Your task to perform on an android device: turn on the 24-hour format for clock Image 0: 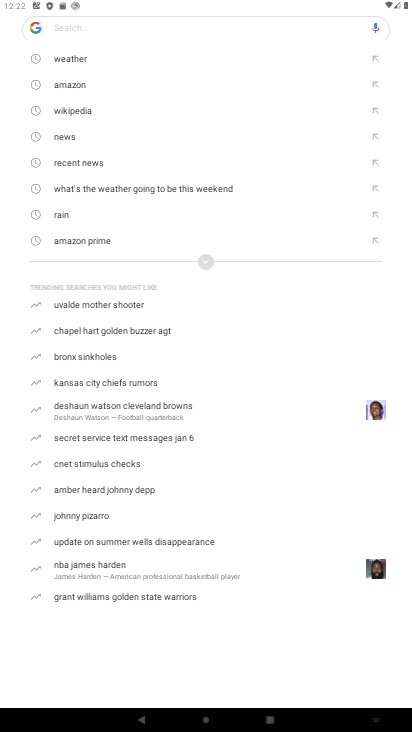
Step 0: press home button
Your task to perform on an android device: turn on the 24-hour format for clock Image 1: 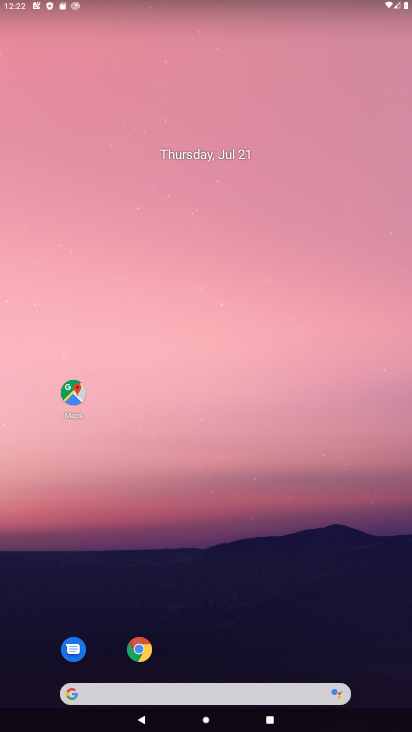
Step 1: drag from (235, 727) to (201, 192)
Your task to perform on an android device: turn on the 24-hour format for clock Image 2: 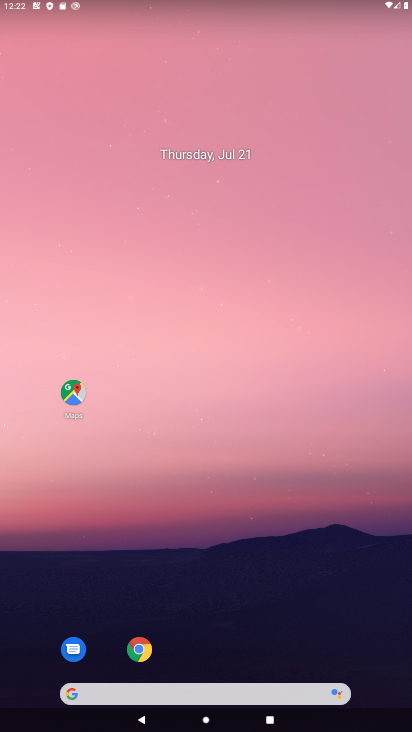
Step 2: drag from (234, 727) to (239, 89)
Your task to perform on an android device: turn on the 24-hour format for clock Image 3: 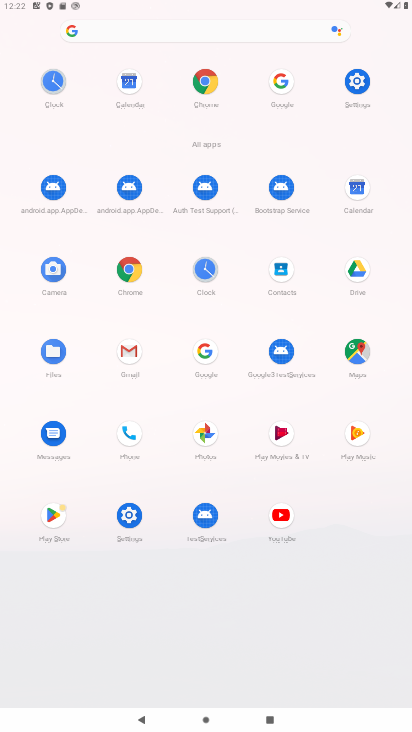
Step 3: click (205, 268)
Your task to perform on an android device: turn on the 24-hour format for clock Image 4: 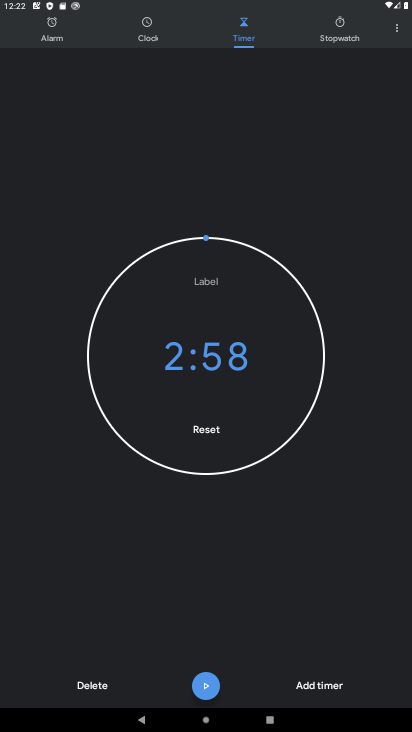
Step 4: click (397, 33)
Your task to perform on an android device: turn on the 24-hour format for clock Image 5: 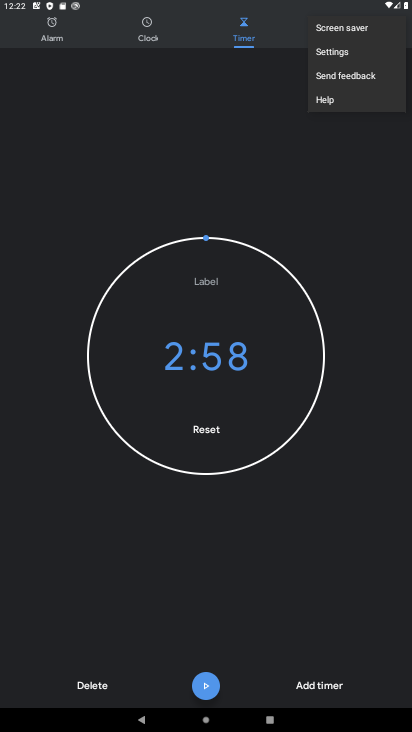
Step 5: click (342, 51)
Your task to perform on an android device: turn on the 24-hour format for clock Image 6: 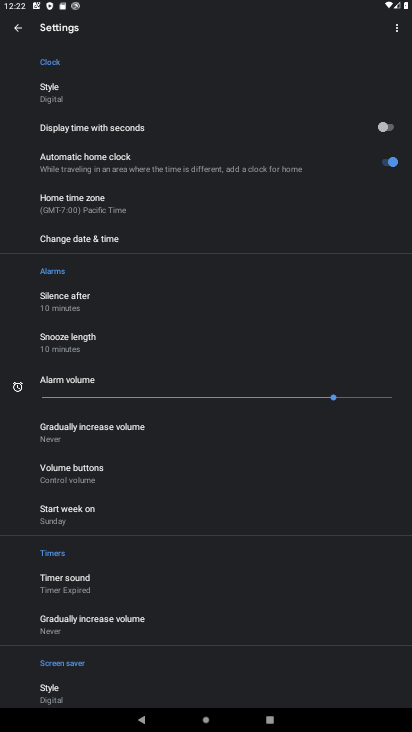
Step 6: click (88, 236)
Your task to perform on an android device: turn on the 24-hour format for clock Image 7: 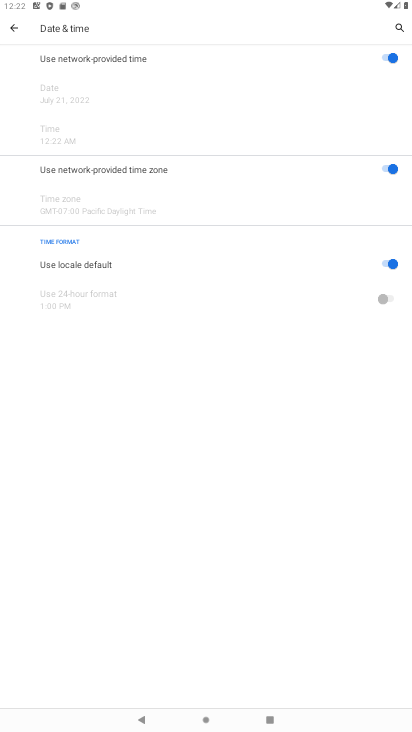
Step 7: click (391, 262)
Your task to perform on an android device: turn on the 24-hour format for clock Image 8: 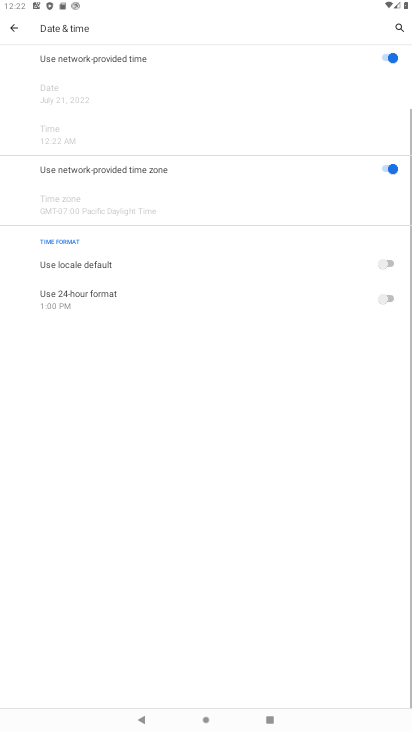
Step 8: click (391, 296)
Your task to perform on an android device: turn on the 24-hour format for clock Image 9: 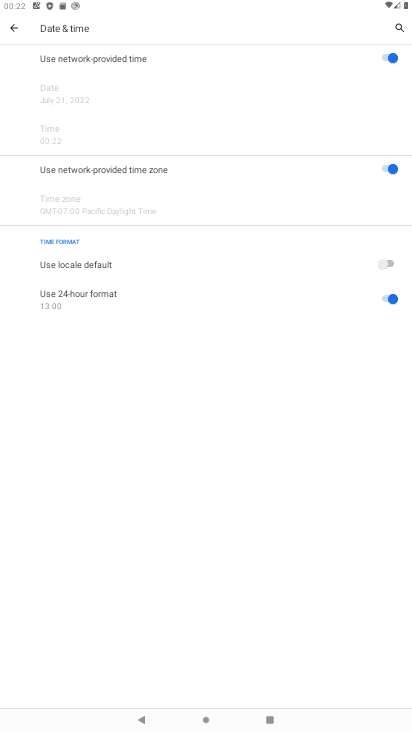
Step 9: task complete